Your task to perform on an android device: Go to battery settings Image 0: 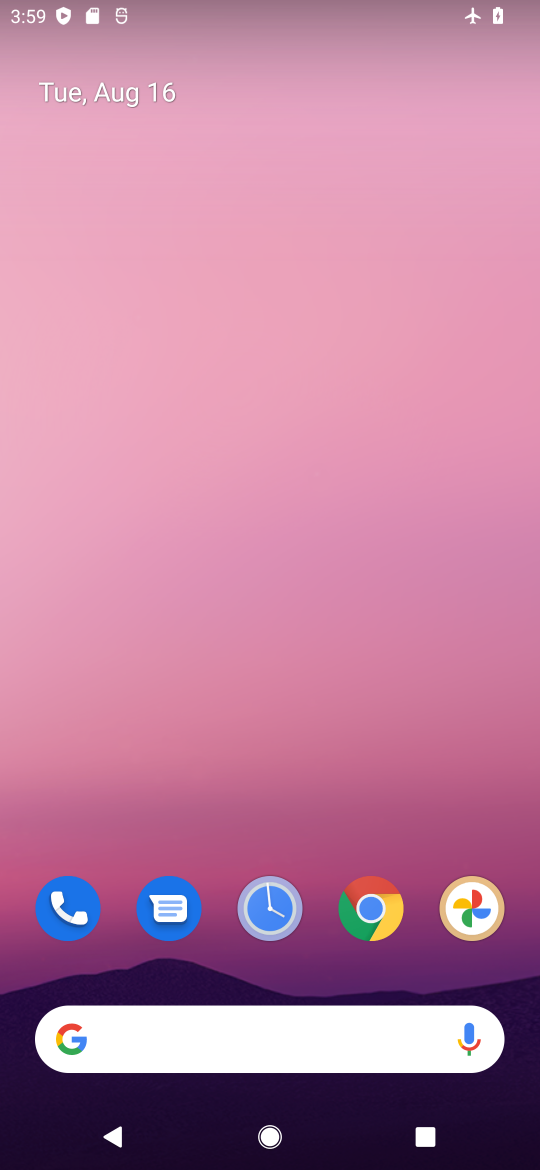
Step 0: drag from (316, 871) to (325, 23)
Your task to perform on an android device: Go to battery settings Image 1: 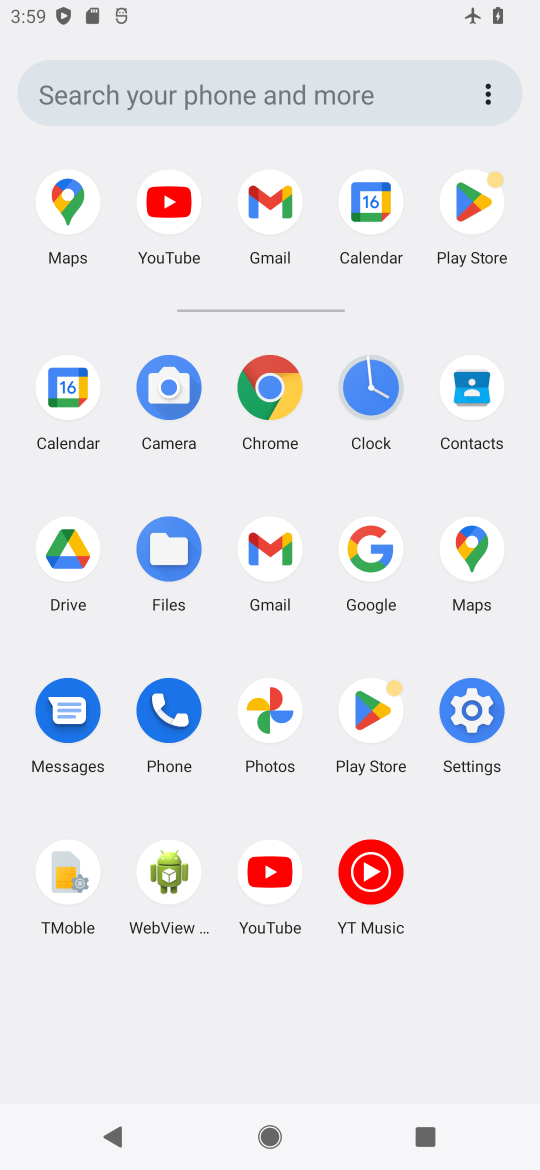
Step 1: click (467, 698)
Your task to perform on an android device: Go to battery settings Image 2: 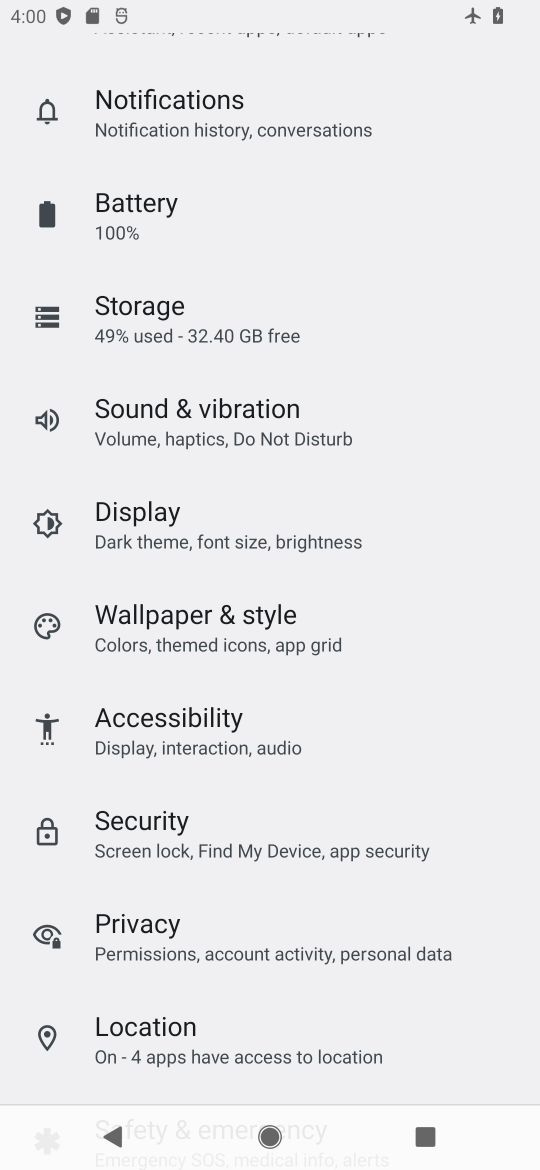
Step 2: click (185, 211)
Your task to perform on an android device: Go to battery settings Image 3: 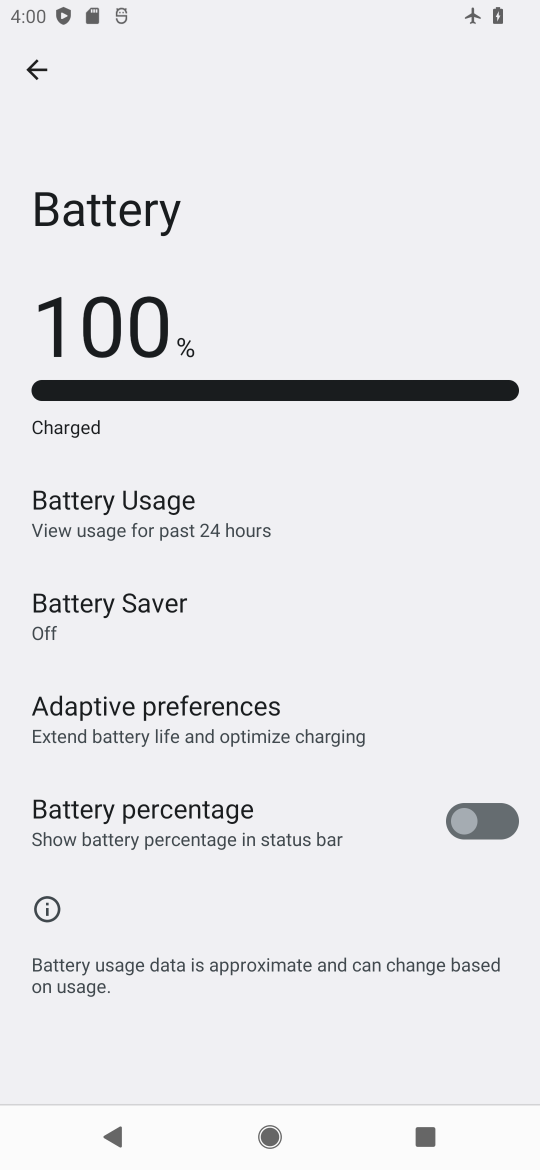
Step 3: task complete